Your task to perform on an android device: read, delete, or share a saved page in the chrome app Image 0: 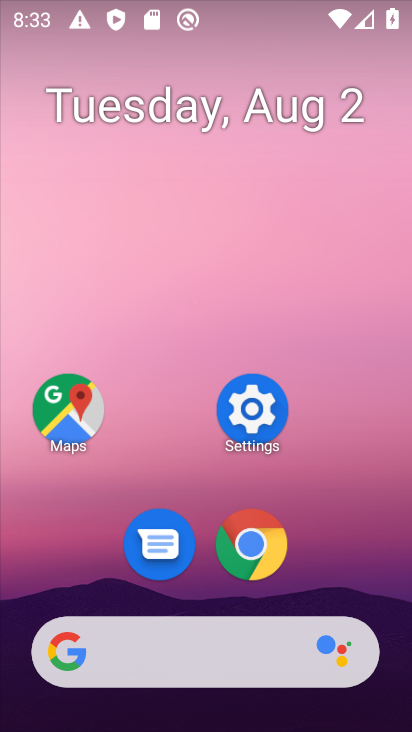
Step 0: click (259, 547)
Your task to perform on an android device: read, delete, or share a saved page in the chrome app Image 1: 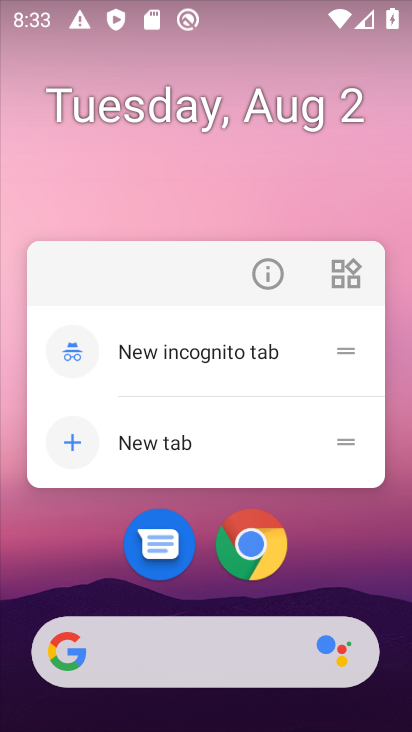
Step 1: click (253, 550)
Your task to perform on an android device: read, delete, or share a saved page in the chrome app Image 2: 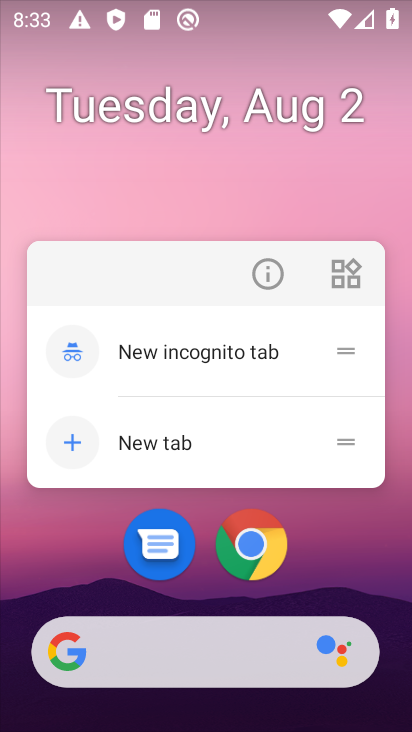
Step 2: click (253, 550)
Your task to perform on an android device: read, delete, or share a saved page in the chrome app Image 3: 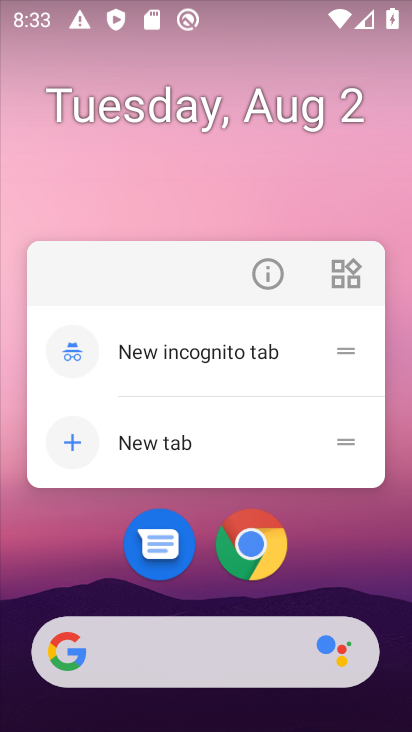
Step 3: click (253, 550)
Your task to perform on an android device: read, delete, or share a saved page in the chrome app Image 4: 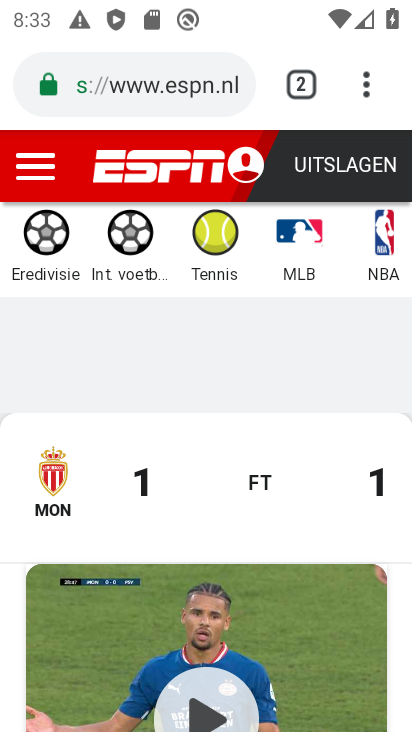
Step 4: drag from (368, 81) to (157, 558)
Your task to perform on an android device: read, delete, or share a saved page in the chrome app Image 5: 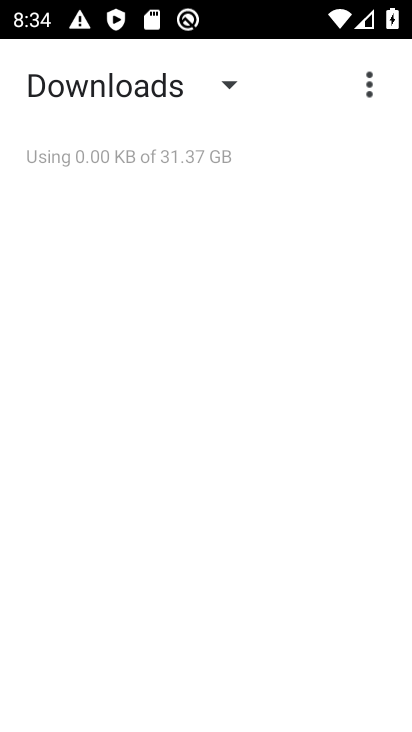
Step 5: click (216, 79)
Your task to perform on an android device: read, delete, or share a saved page in the chrome app Image 6: 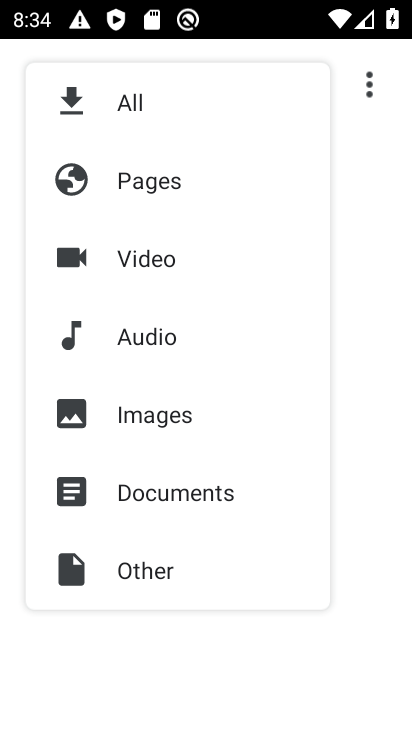
Step 6: click (149, 181)
Your task to perform on an android device: read, delete, or share a saved page in the chrome app Image 7: 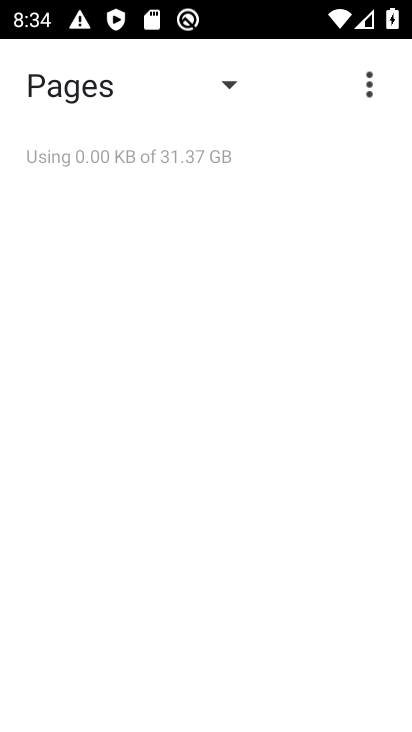
Step 7: task complete